Your task to perform on an android device: Find coffee shops on Maps Image 0: 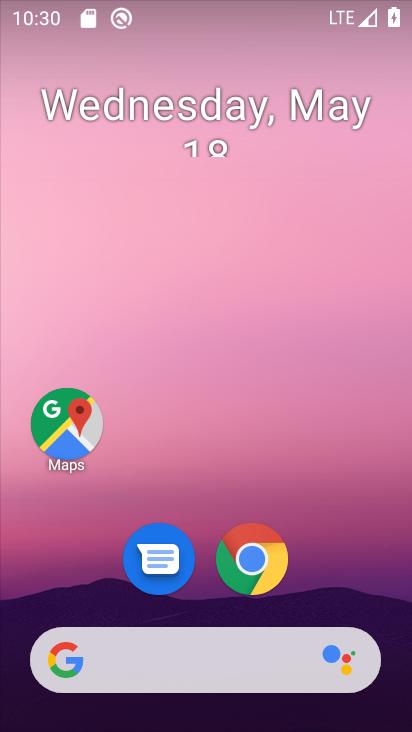
Step 0: click (81, 415)
Your task to perform on an android device: Find coffee shops on Maps Image 1: 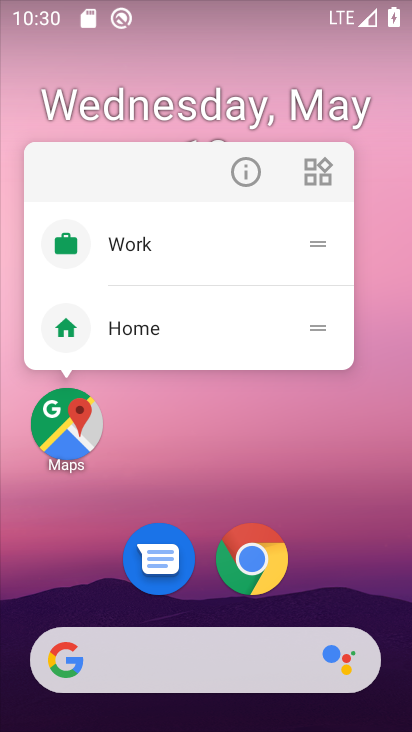
Step 1: click (82, 414)
Your task to perform on an android device: Find coffee shops on Maps Image 2: 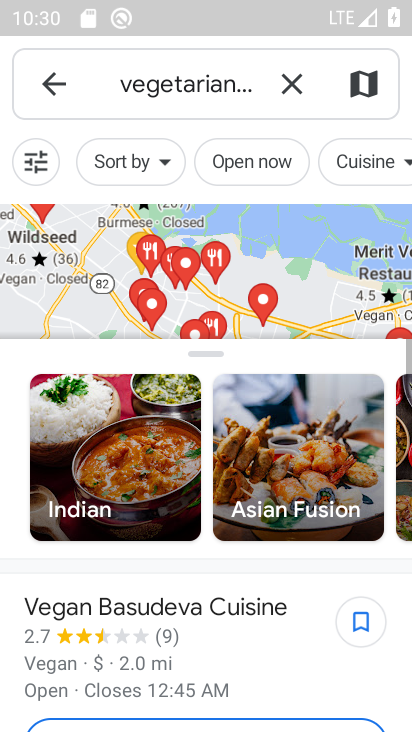
Step 2: click (192, 74)
Your task to perform on an android device: Find coffee shops on Maps Image 3: 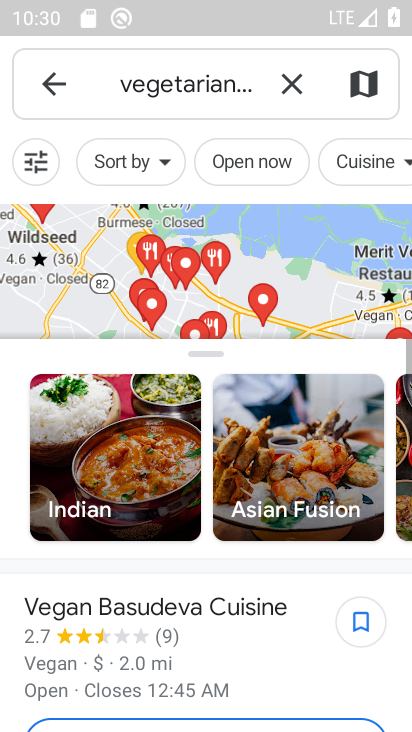
Step 3: click (295, 80)
Your task to perform on an android device: Find coffee shops on Maps Image 4: 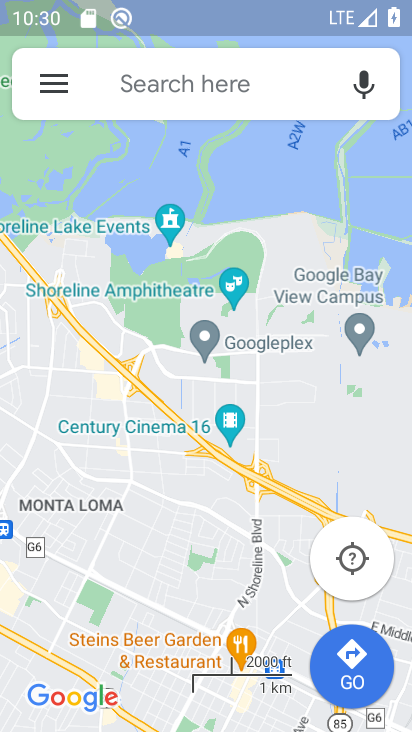
Step 4: click (197, 83)
Your task to perform on an android device: Find coffee shops on Maps Image 5: 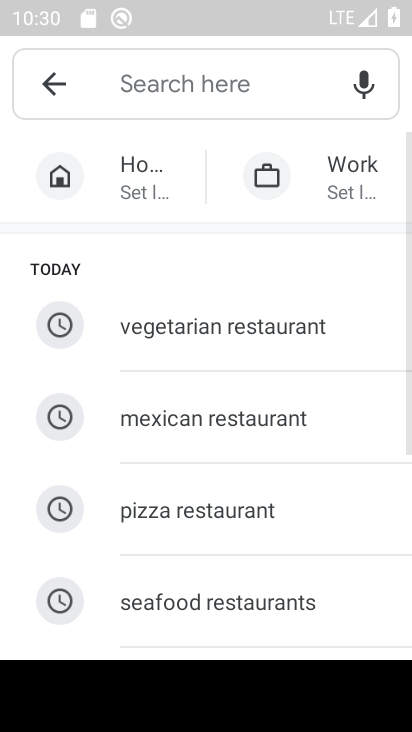
Step 5: type ""
Your task to perform on an android device: Find coffee shops on Maps Image 6: 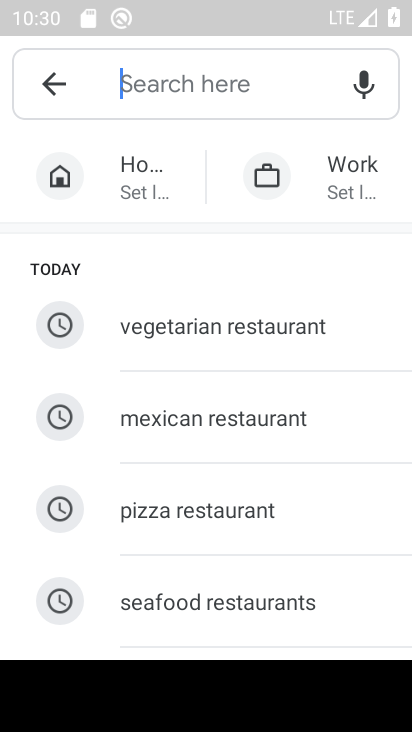
Step 6: type "coffee shops"
Your task to perform on an android device: Find coffee shops on Maps Image 7: 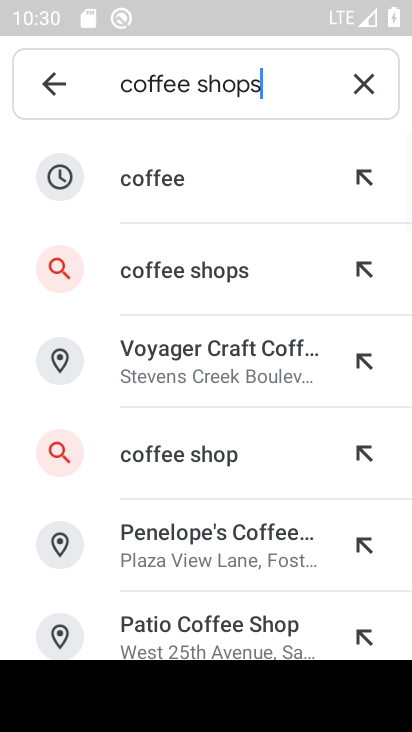
Step 7: click (248, 275)
Your task to perform on an android device: Find coffee shops on Maps Image 8: 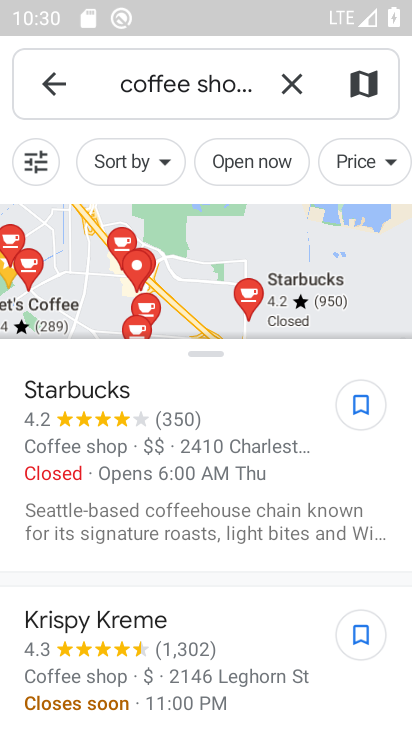
Step 8: task complete